Your task to perform on an android device: Go to Yahoo.com Image 0: 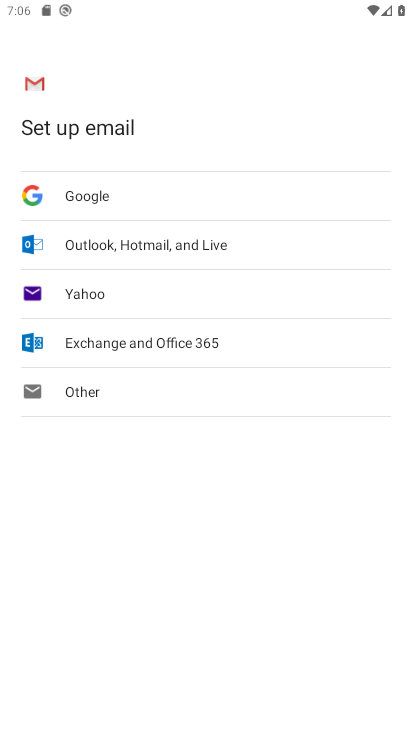
Step 0: press home button
Your task to perform on an android device: Go to Yahoo.com Image 1: 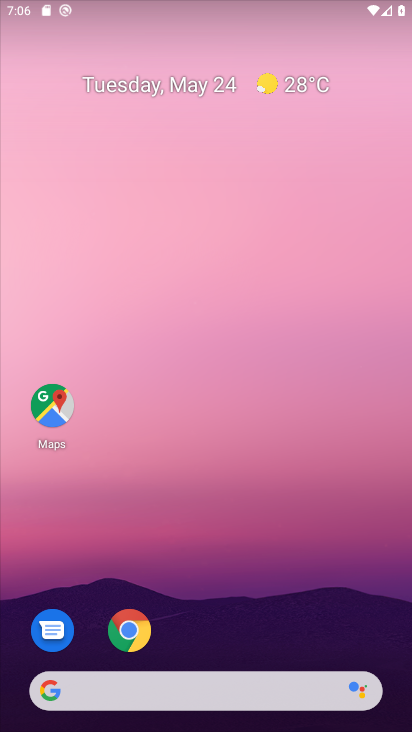
Step 1: drag from (219, 680) to (61, 177)
Your task to perform on an android device: Go to Yahoo.com Image 2: 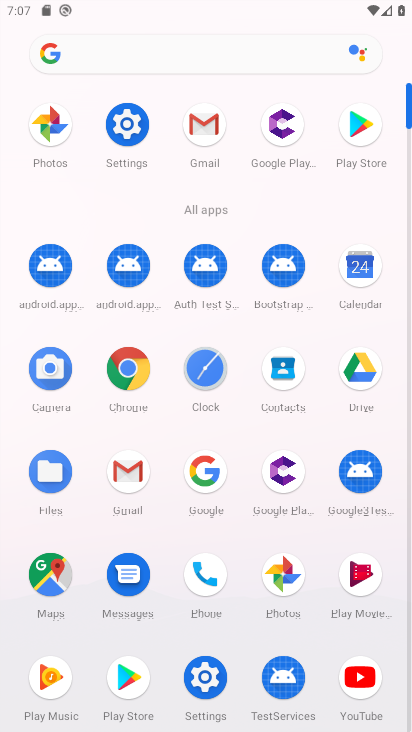
Step 2: click (132, 381)
Your task to perform on an android device: Go to Yahoo.com Image 3: 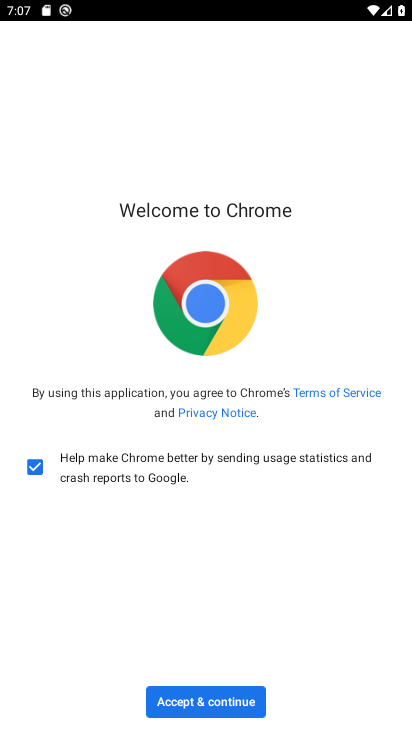
Step 3: click (221, 711)
Your task to perform on an android device: Go to Yahoo.com Image 4: 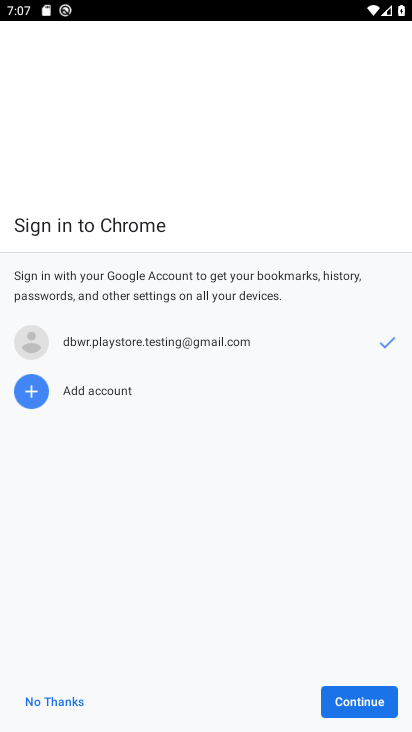
Step 4: click (338, 698)
Your task to perform on an android device: Go to Yahoo.com Image 5: 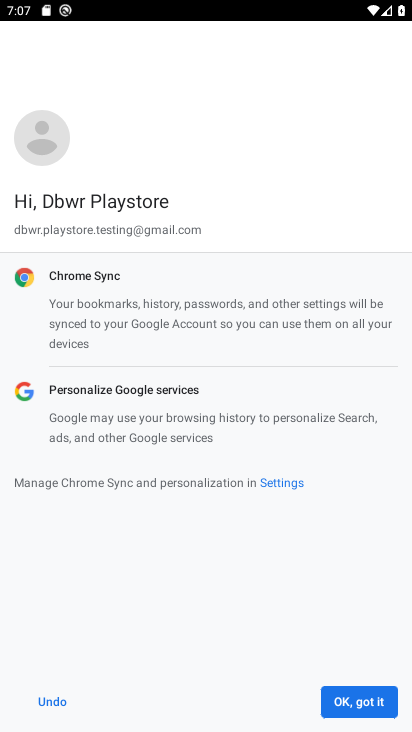
Step 5: click (360, 691)
Your task to perform on an android device: Go to Yahoo.com Image 6: 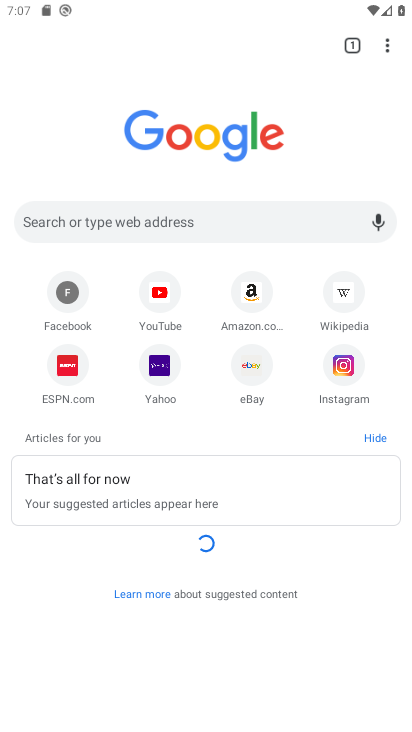
Step 6: click (163, 361)
Your task to perform on an android device: Go to Yahoo.com Image 7: 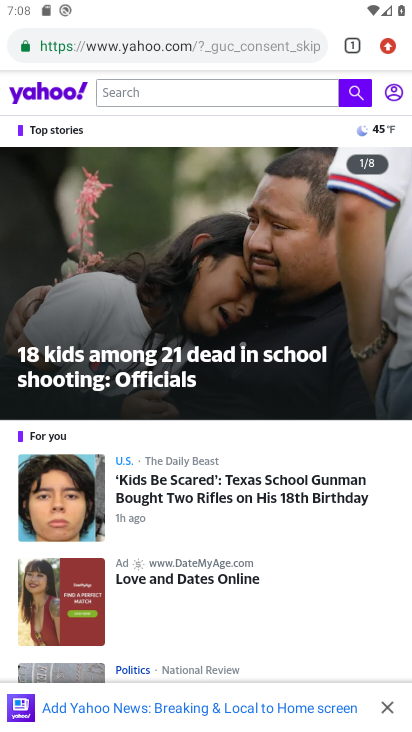
Step 7: task complete